Your task to perform on an android device: snooze an email in the gmail app Image 0: 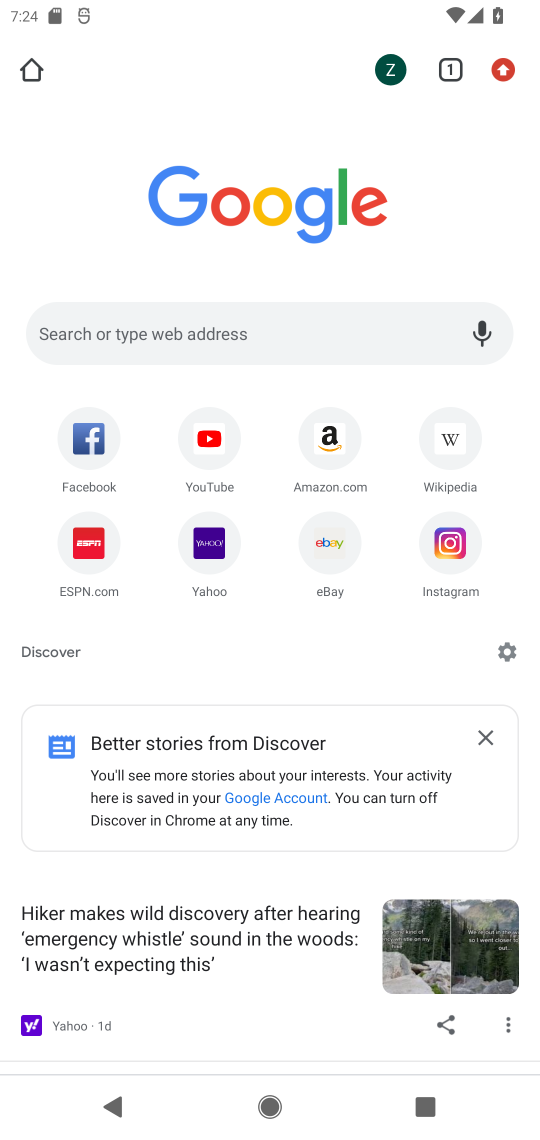
Step 0: press home button
Your task to perform on an android device: snooze an email in the gmail app Image 1: 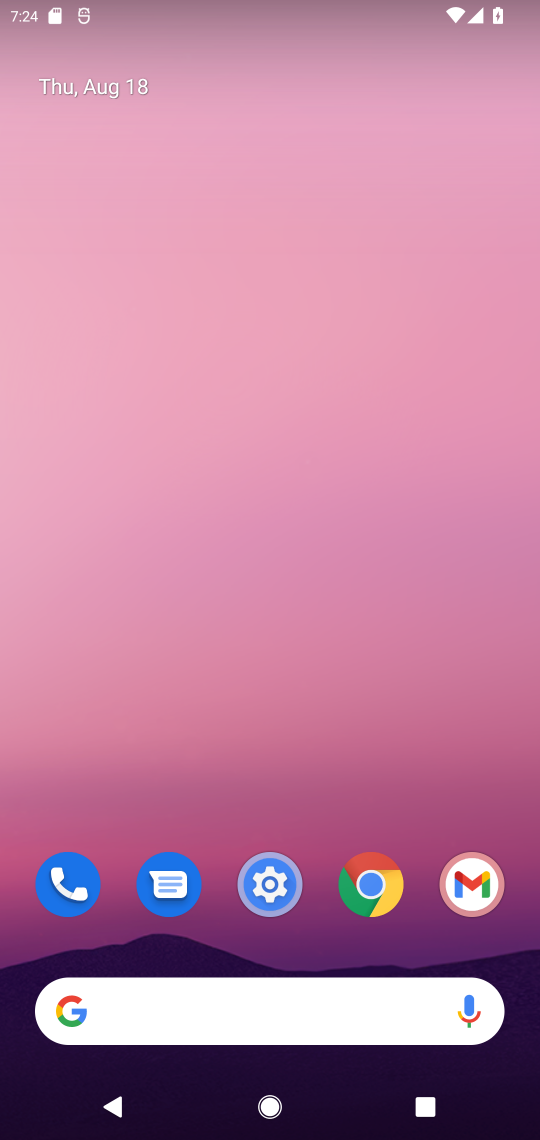
Step 1: click (472, 883)
Your task to perform on an android device: snooze an email in the gmail app Image 2: 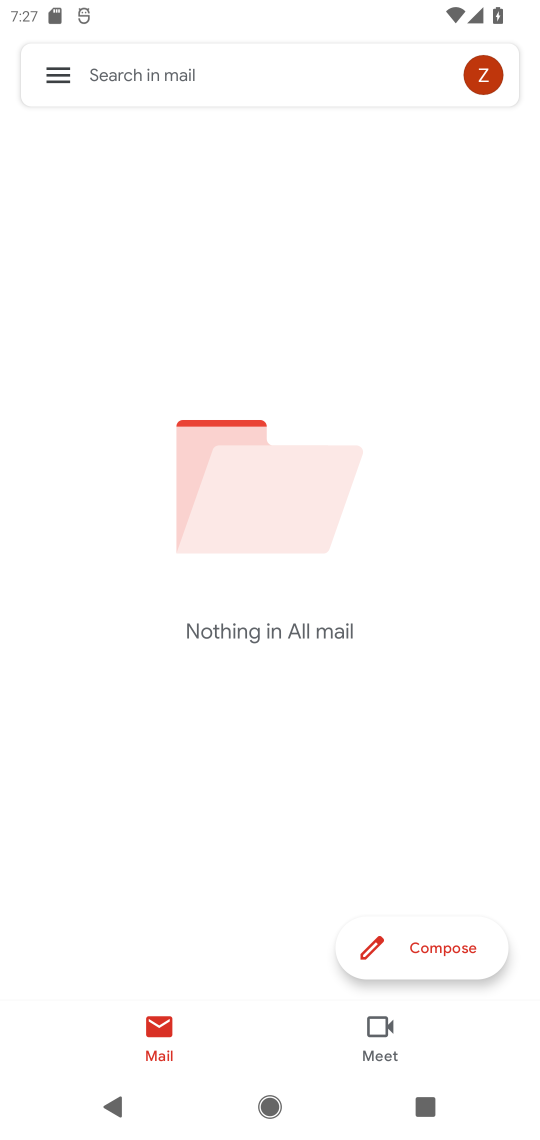
Step 2: task complete